Your task to perform on an android device: toggle notifications settings in the gmail app Image 0: 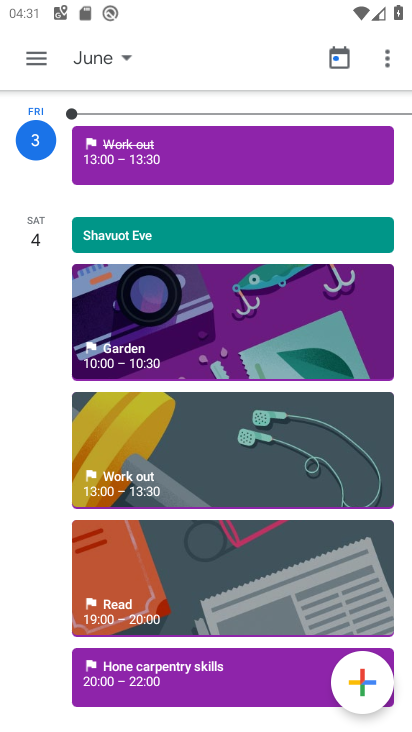
Step 0: press home button
Your task to perform on an android device: toggle notifications settings in the gmail app Image 1: 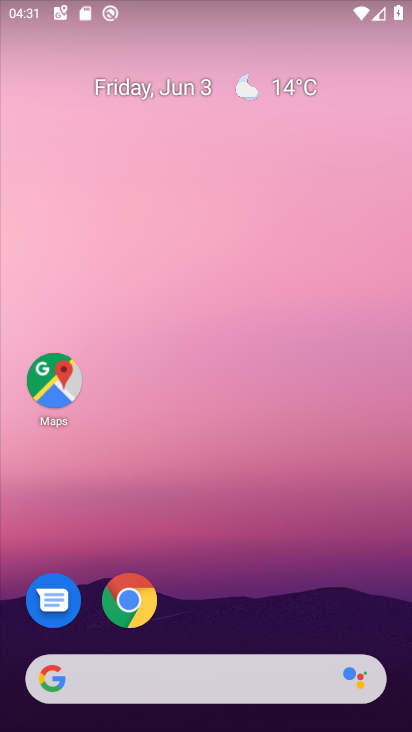
Step 1: drag from (253, 558) to (246, 98)
Your task to perform on an android device: toggle notifications settings in the gmail app Image 2: 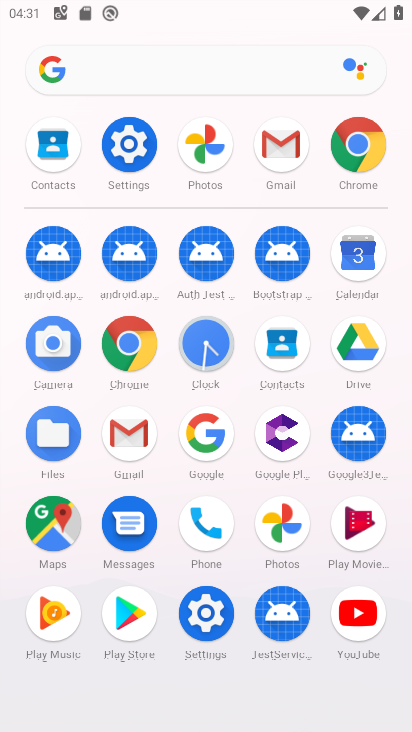
Step 2: click (278, 142)
Your task to perform on an android device: toggle notifications settings in the gmail app Image 3: 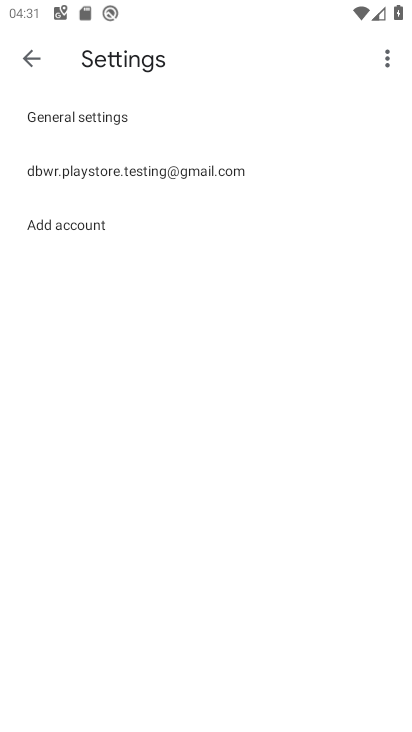
Step 3: click (192, 178)
Your task to perform on an android device: toggle notifications settings in the gmail app Image 4: 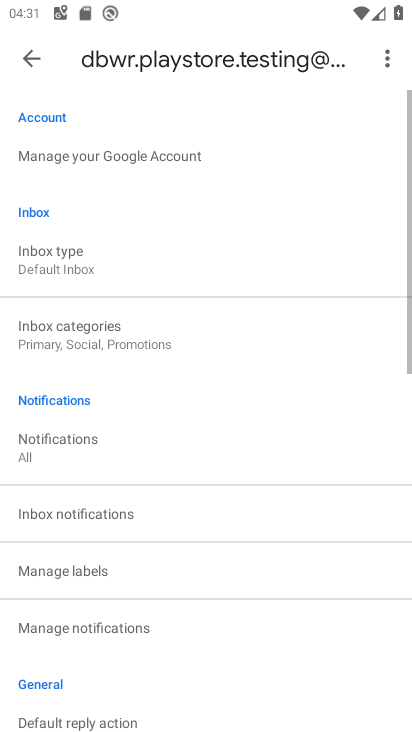
Step 4: click (220, 175)
Your task to perform on an android device: toggle notifications settings in the gmail app Image 5: 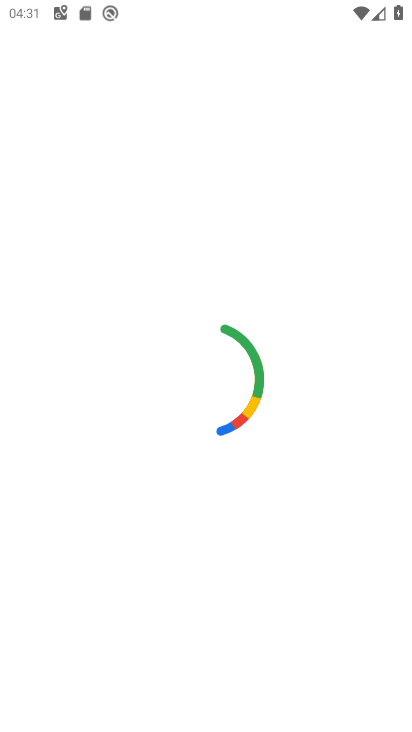
Step 5: press back button
Your task to perform on an android device: toggle notifications settings in the gmail app Image 6: 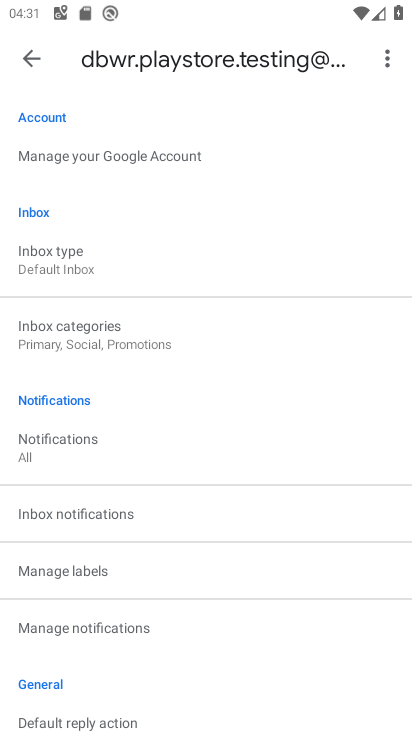
Step 6: click (102, 627)
Your task to perform on an android device: toggle notifications settings in the gmail app Image 7: 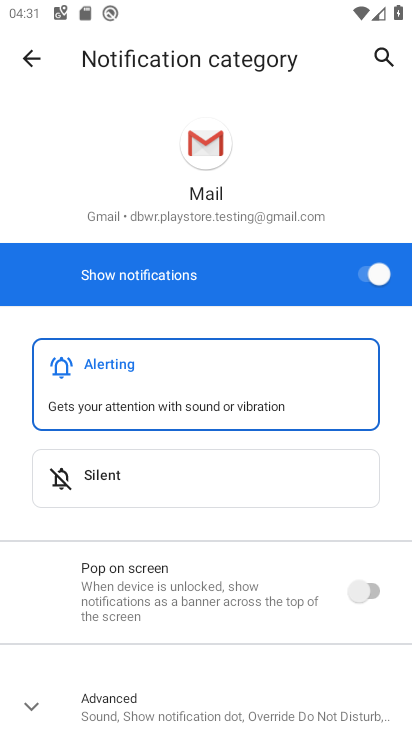
Step 7: click (378, 270)
Your task to perform on an android device: toggle notifications settings in the gmail app Image 8: 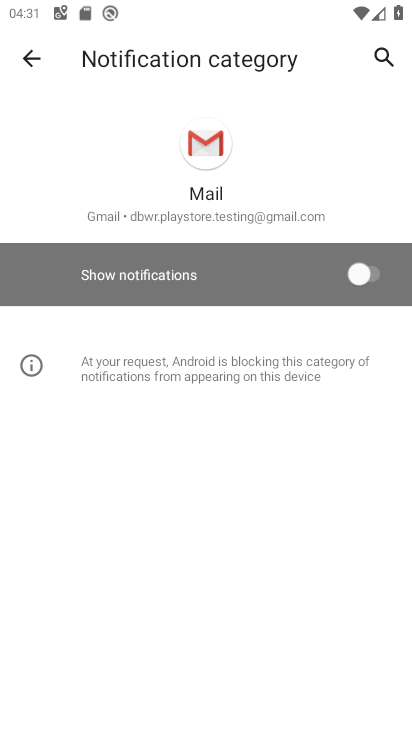
Step 8: task complete